Your task to perform on an android device: Open sound settings Image 0: 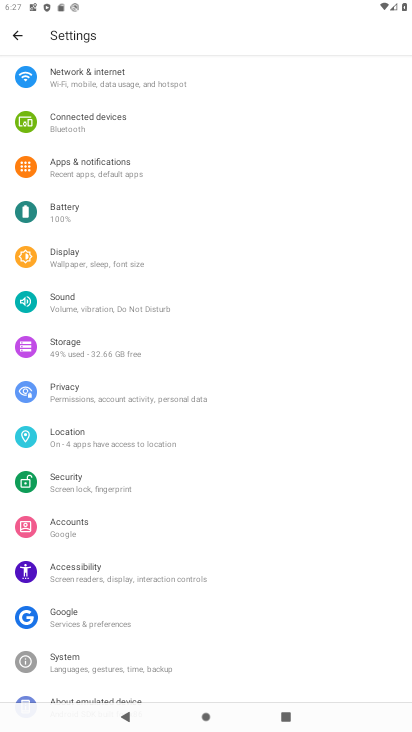
Step 0: press home button
Your task to perform on an android device: Open sound settings Image 1: 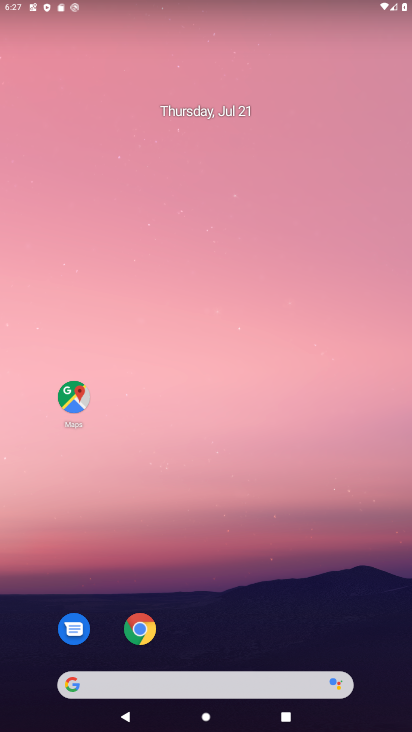
Step 1: drag from (189, 683) to (289, 167)
Your task to perform on an android device: Open sound settings Image 2: 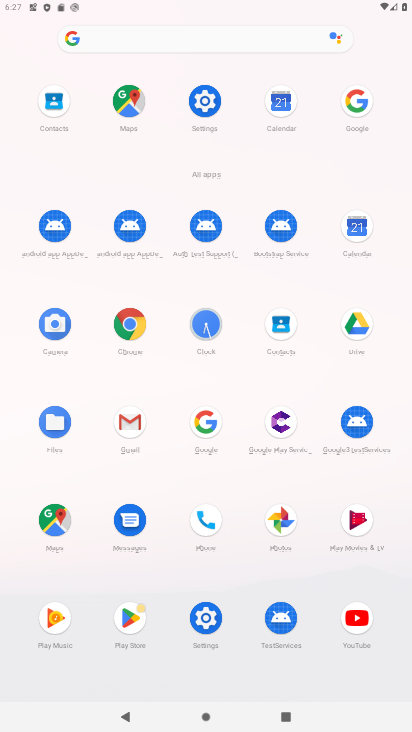
Step 2: click (204, 99)
Your task to perform on an android device: Open sound settings Image 3: 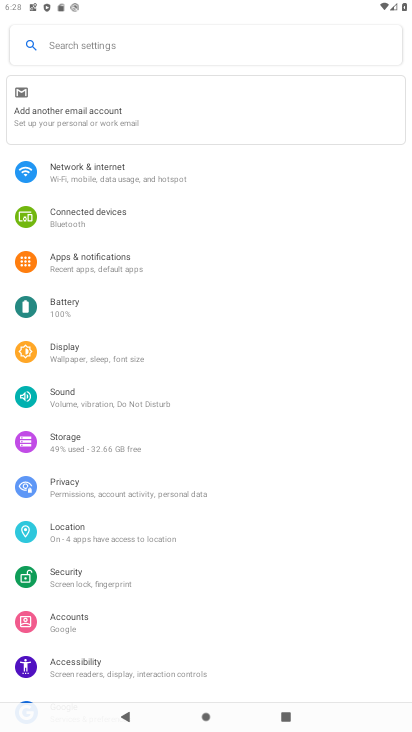
Step 3: click (81, 401)
Your task to perform on an android device: Open sound settings Image 4: 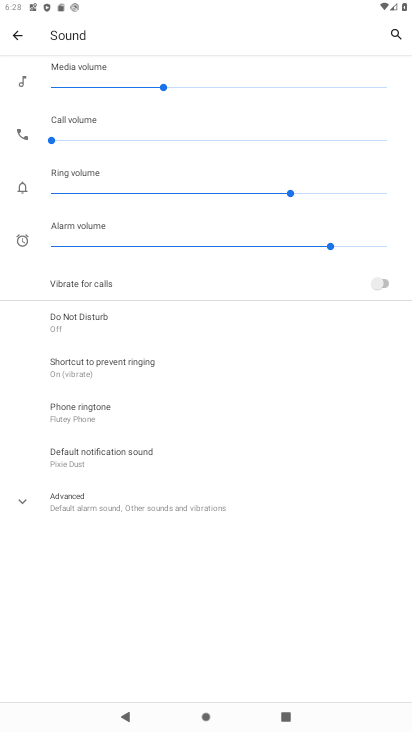
Step 4: task complete